Your task to perform on an android device: Set the phone to "Do not disturb". Image 0: 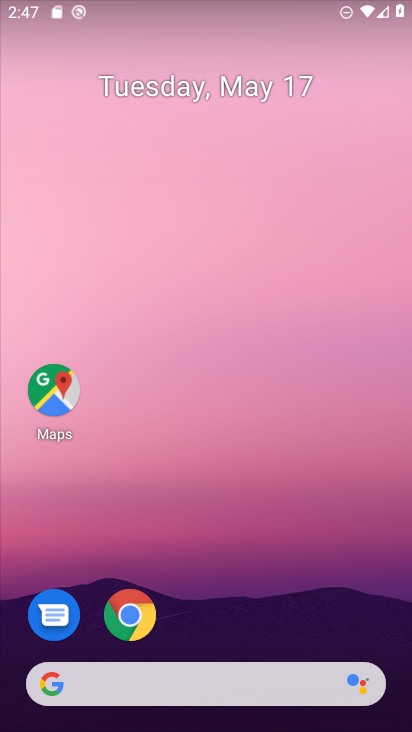
Step 0: drag from (193, 518) to (158, 92)
Your task to perform on an android device: Set the phone to "Do not disturb". Image 1: 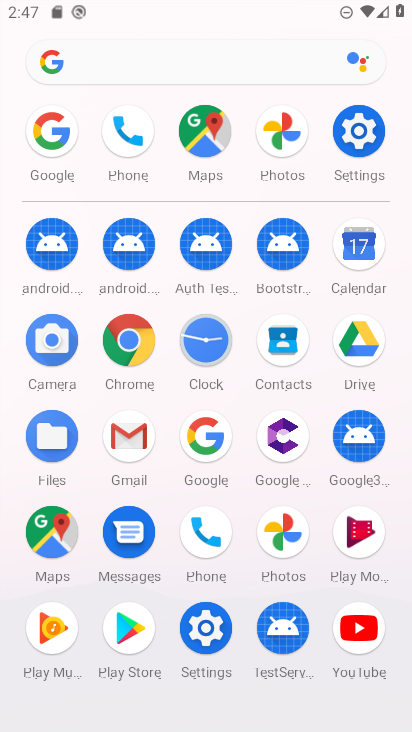
Step 1: click (350, 135)
Your task to perform on an android device: Set the phone to "Do not disturb". Image 2: 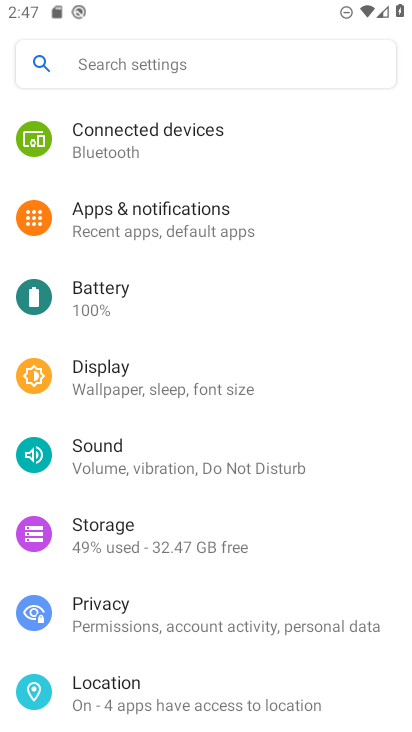
Step 2: click (148, 469)
Your task to perform on an android device: Set the phone to "Do not disturb". Image 3: 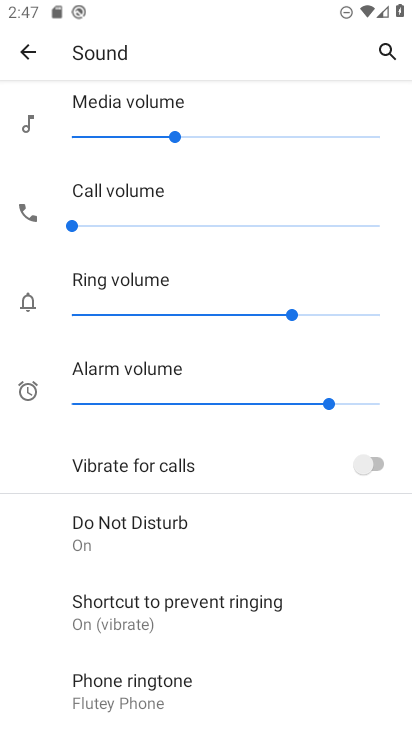
Step 3: drag from (128, 649) to (122, 481)
Your task to perform on an android device: Set the phone to "Do not disturb". Image 4: 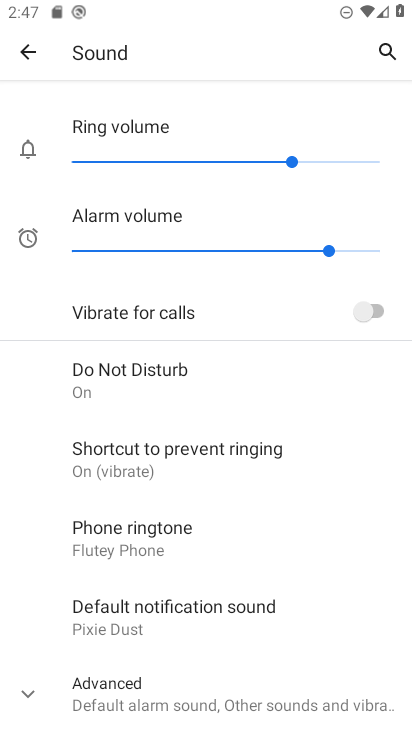
Step 4: click (98, 366)
Your task to perform on an android device: Set the phone to "Do not disturb". Image 5: 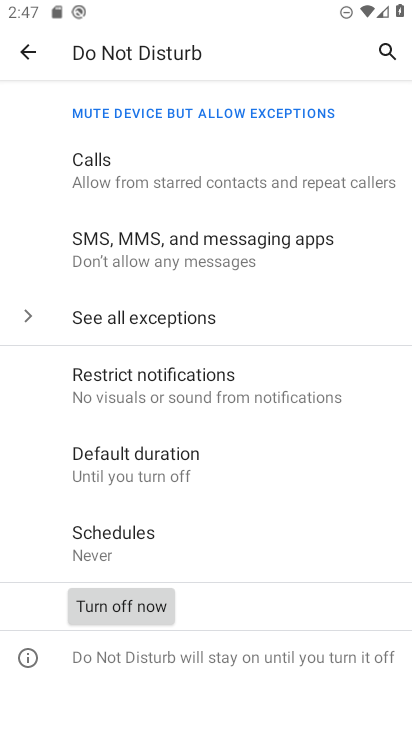
Step 5: task complete